Your task to perform on an android device: Open wifi settings Image 0: 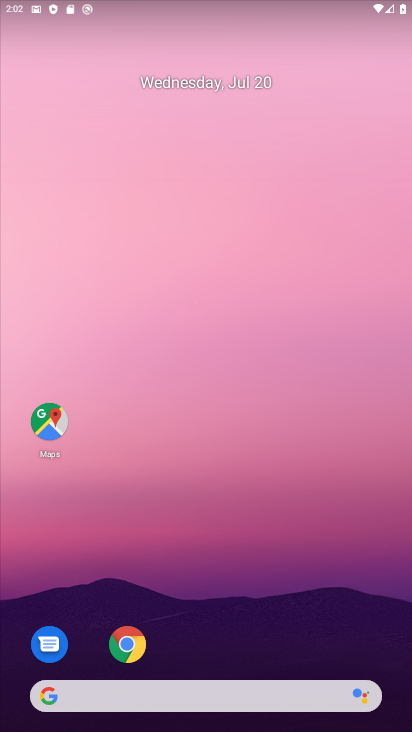
Step 0: drag from (246, 626) to (309, 0)
Your task to perform on an android device: Open wifi settings Image 1: 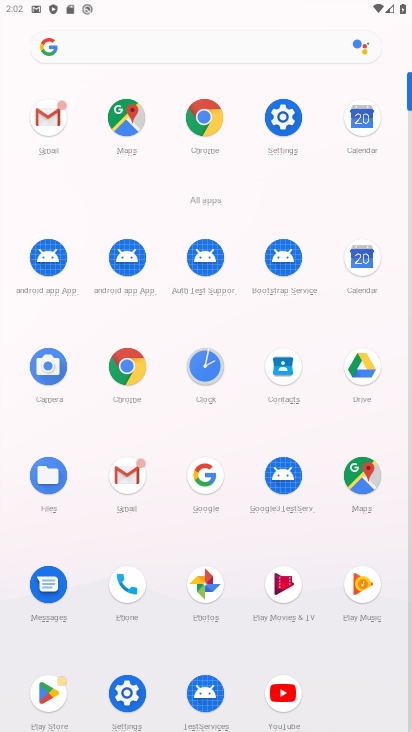
Step 1: click (277, 135)
Your task to perform on an android device: Open wifi settings Image 2: 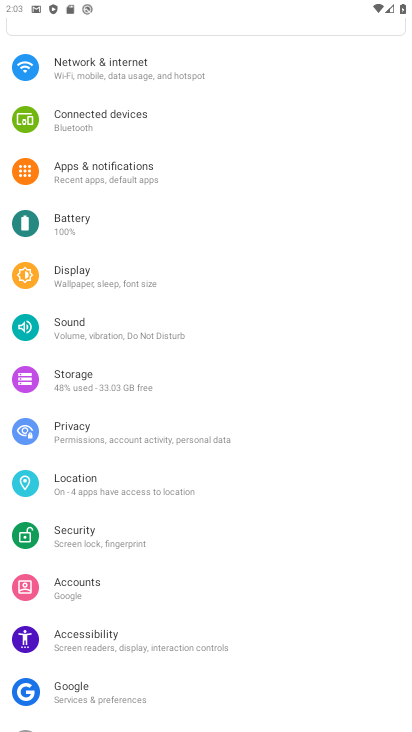
Step 2: click (103, 80)
Your task to perform on an android device: Open wifi settings Image 3: 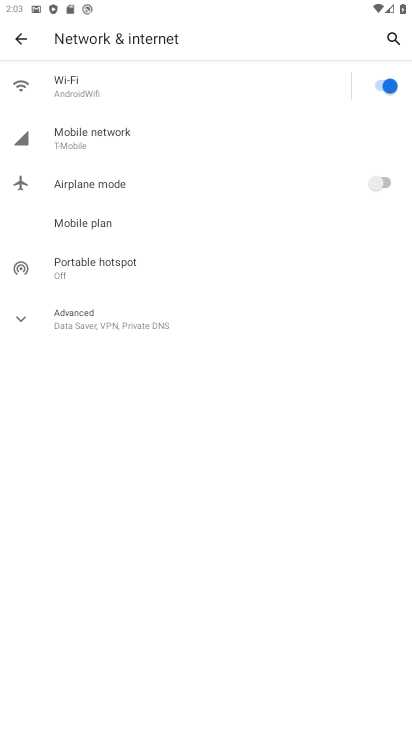
Step 3: click (46, 76)
Your task to perform on an android device: Open wifi settings Image 4: 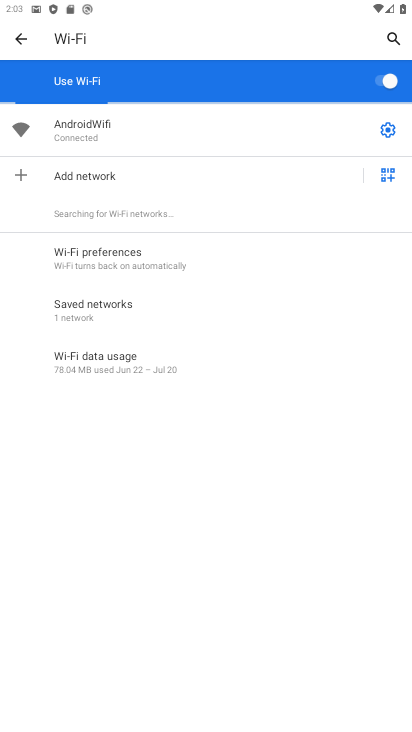
Step 4: task complete